Your task to perform on an android device: Go to Google maps Image 0: 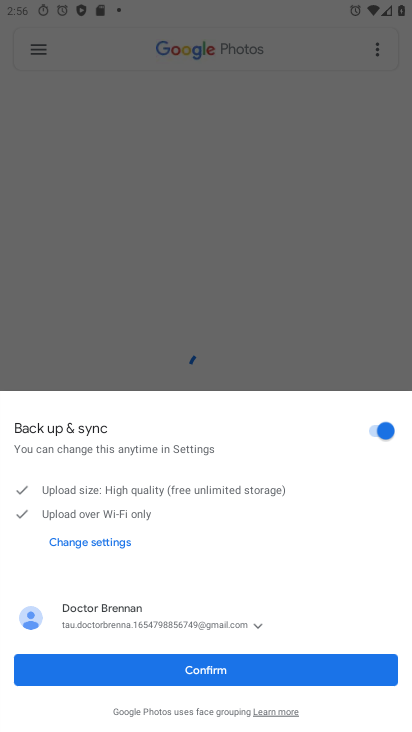
Step 0: press home button
Your task to perform on an android device: Go to Google maps Image 1: 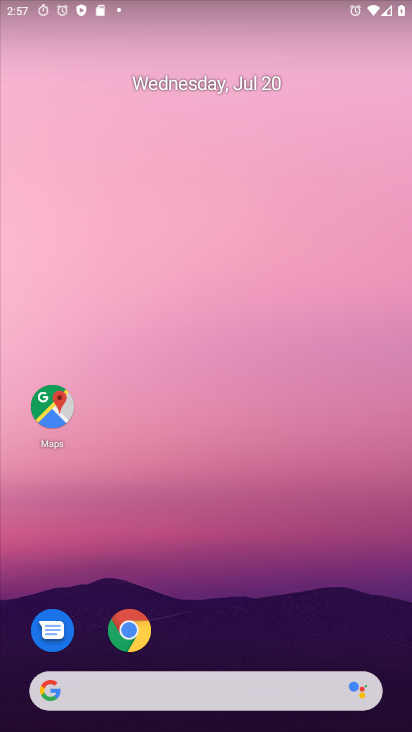
Step 1: click (58, 401)
Your task to perform on an android device: Go to Google maps Image 2: 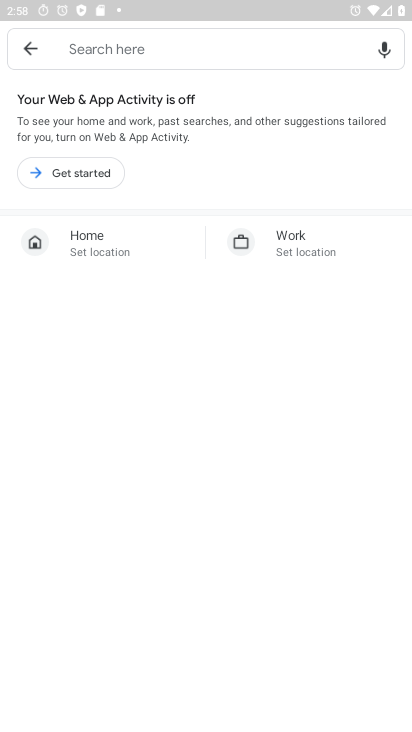
Step 2: task complete